Your task to perform on an android device: add a label to a message in the gmail app Image 0: 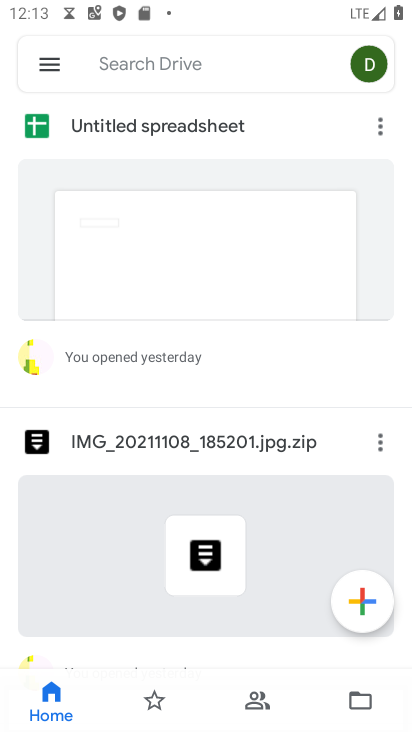
Step 0: press home button
Your task to perform on an android device: add a label to a message in the gmail app Image 1: 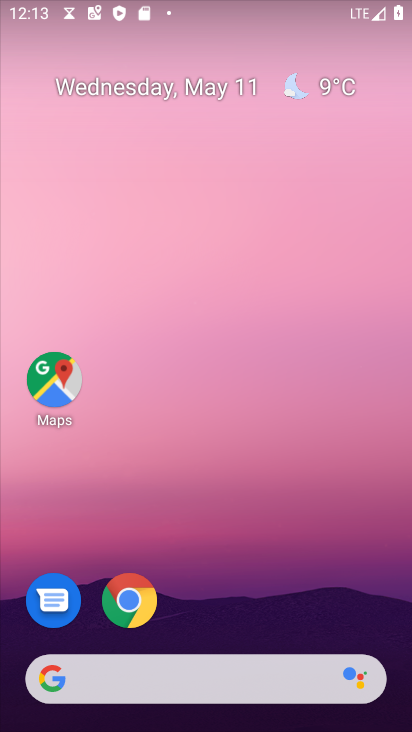
Step 1: drag from (222, 555) to (182, 68)
Your task to perform on an android device: add a label to a message in the gmail app Image 2: 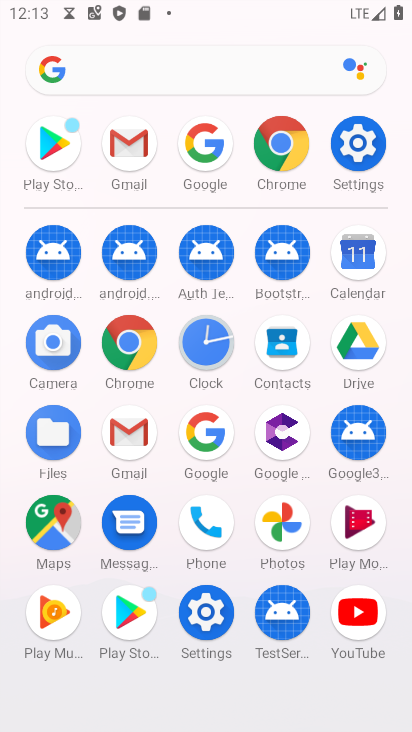
Step 2: click (124, 420)
Your task to perform on an android device: add a label to a message in the gmail app Image 3: 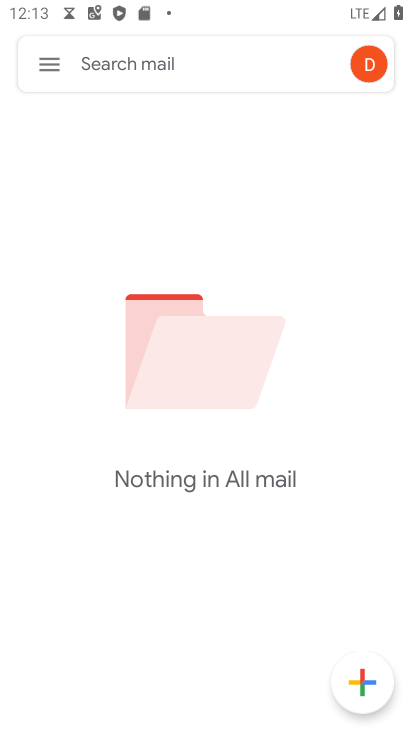
Step 3: click (54, 59)
Your task to perform on an android device: add a label to a message in the gmail app Image 4: 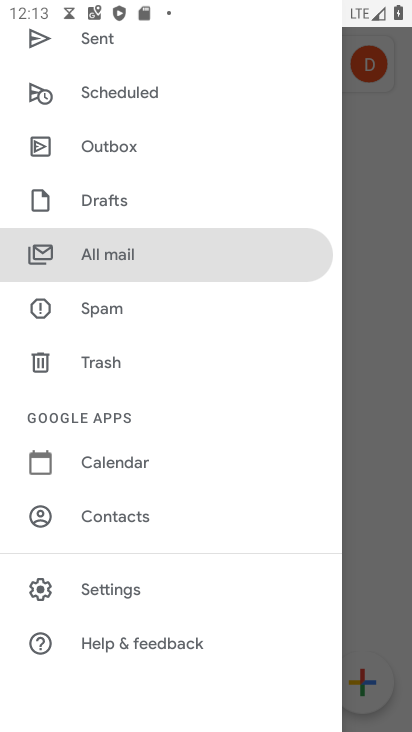
Step 4: click (138, 261)
Your task to perform on an android device: add a label to a message in the gmail app Image 5: 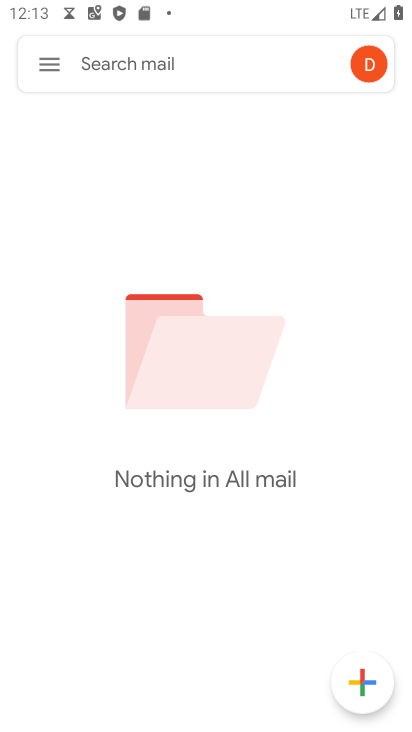
Step 5: task complete